Your task to perform on an android device: Open sound settings Image 0: 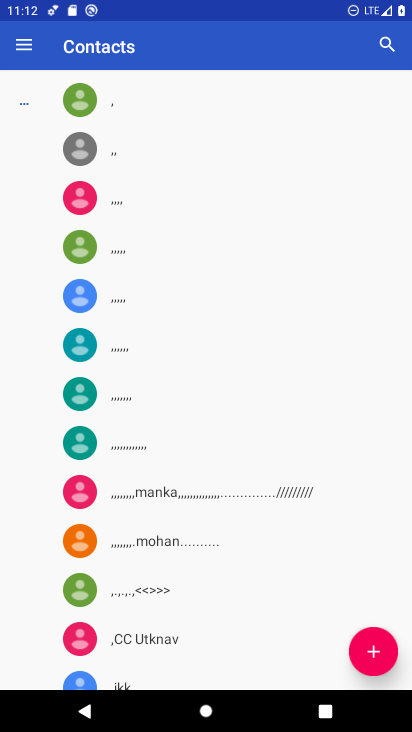
Step 0: drag from (183, 624) to (224, 175)
Your task to perform on an android device: Open sound settings Image 1: 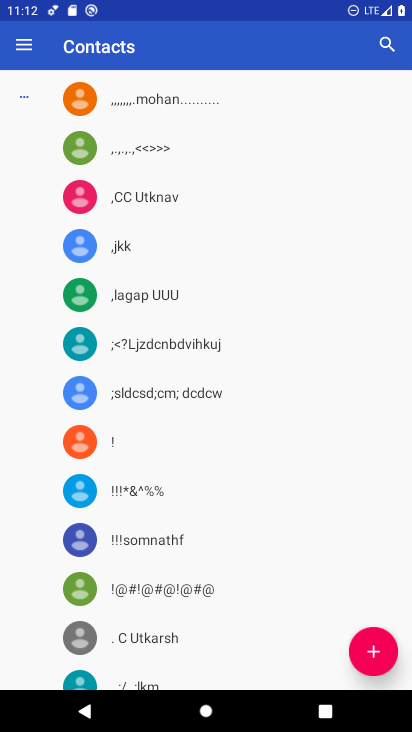
Step 1: press home button
Your task to perform on an android device: Open sound settings Image 2: 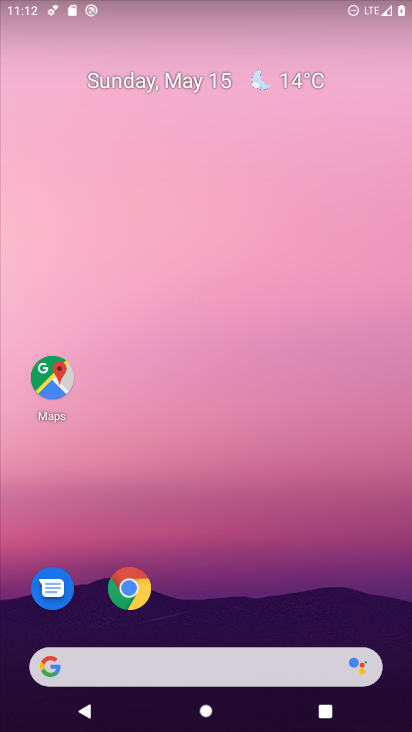
Step 2: drag from (225, 600) to (238, 145)
Your task to perform on an android device: Open sound settings Image 3: 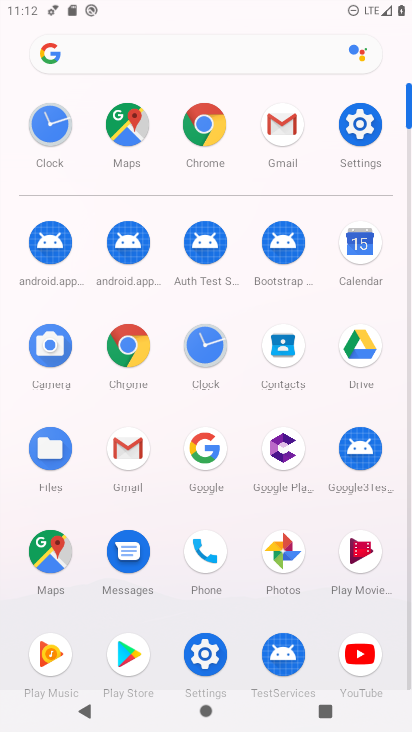
Step 3: click (372, 126)
Your task to perform on an android device: Open sound settings Image 4: 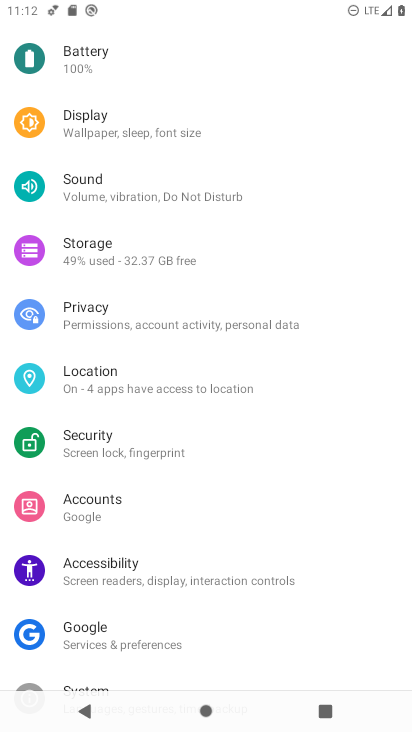
Step 4: click (118, 184)
Your task to perform on an android device: Open sound settings Image 5: 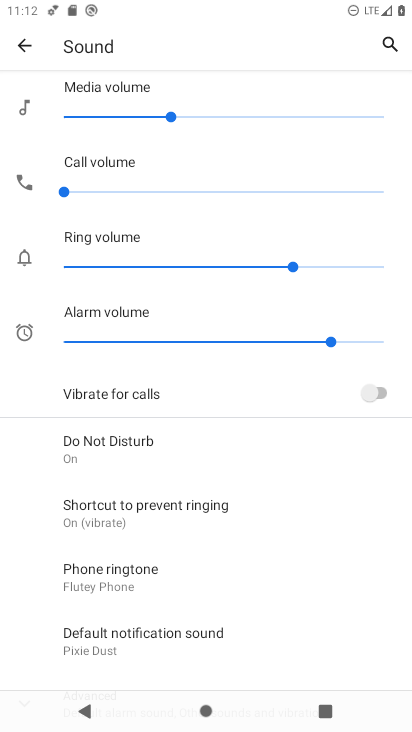
Step 5: task complete